Your task to perform on an android device: Search for pizza restaurants on Maps Image 0: 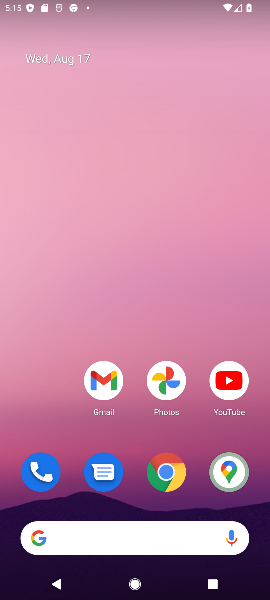
Step 0: drag from (135, 435) to (135, 381)
Your task to perform on an android device: Search for pizza restaurants on Maps Image 1: 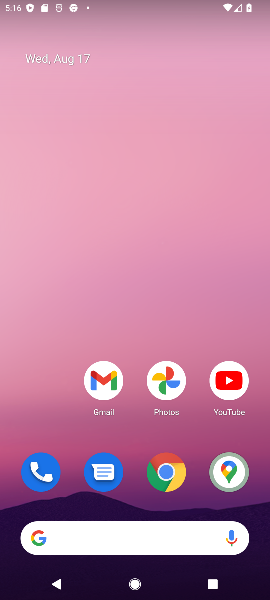
Step 1: click (230, 473)
Your task to perform on an android device: Search for pizza restaurants on Maps Image 2: 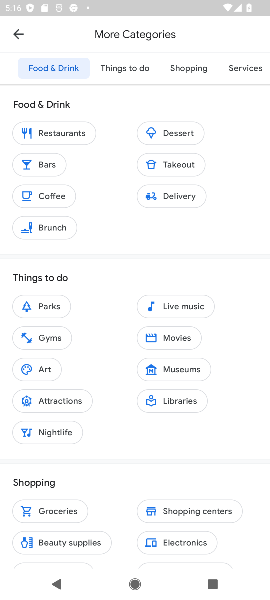
Step 2: click (23, 36)
Your task to perform on an android device: Search for pizza restaurants on Maps Image 3: 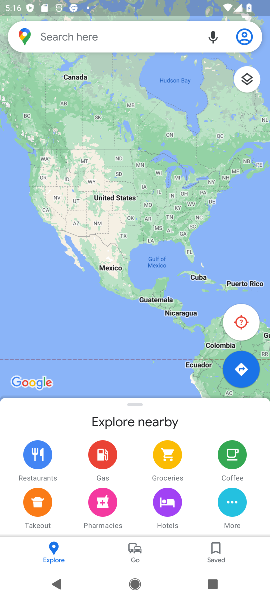
Step 3: click (103, 45)
Your task to perform on an android device: Search for pizza restaurants on Maps Image 4: 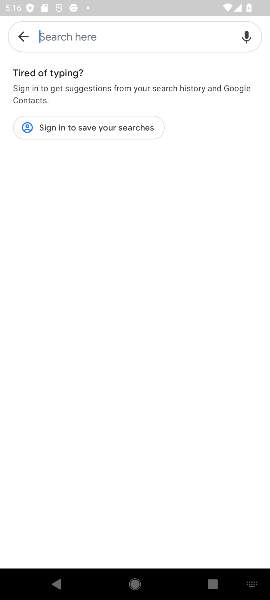
Step 4: type "pizza restaurants"
Your task to perform on an android device: Search for pizza restaurants on Maps Image 5: 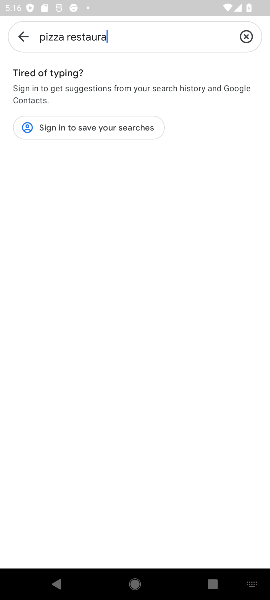
Step 5: type ""
Your task to perform on an android device: Search for pizza restaurants on Maps Image 6: 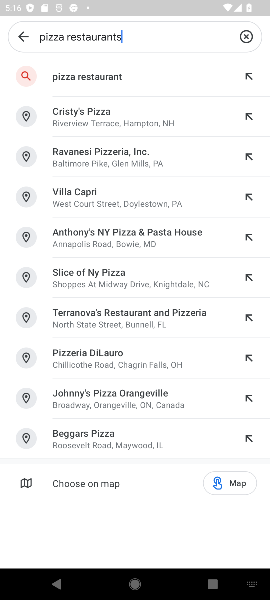
Step 6: click (90, 78)
Your task to perform on an android device: Search for pizza restaurants on Maps Image 7: 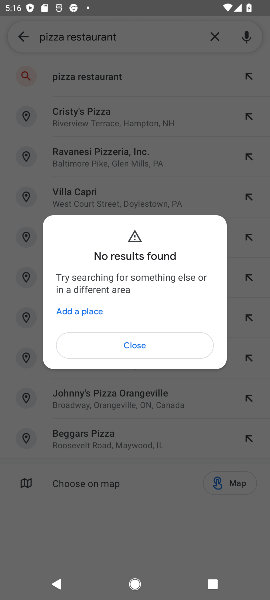
Step 7: click (159, 349)
Your task to perform on an android device: Search for pizza restaurants on Maps Image 8: 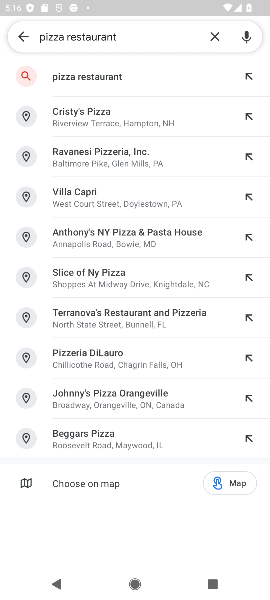
Step 8: click (99, 78)
Your task to perform on an android device: Search for pizza restaurants on Maps Image 9: 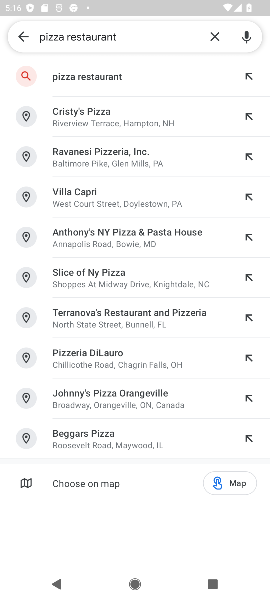
Step 9: click (99, 78)
Your task to perform on an android device: Search for pizza restaurants on Maps Image 10: 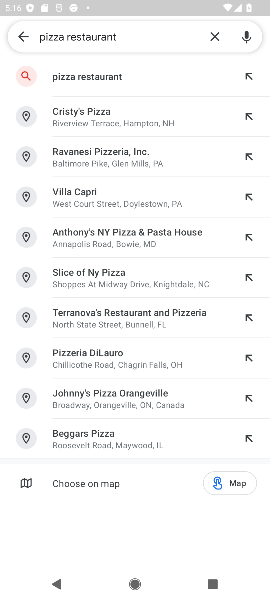
Step 10: click (130, 67)
Your task to perform on an android device: Search for pizza restaurants on Maps Image 11: 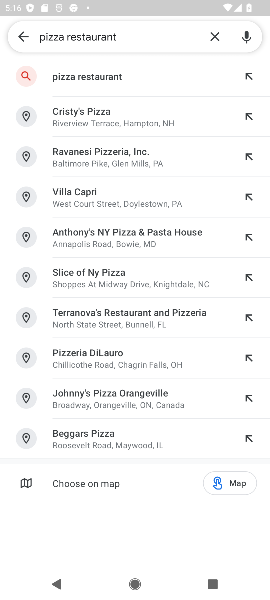
Step 11: click (212, 36)
Your task to perform on an android device: Search for pizza restaurants on Maps Image 12: 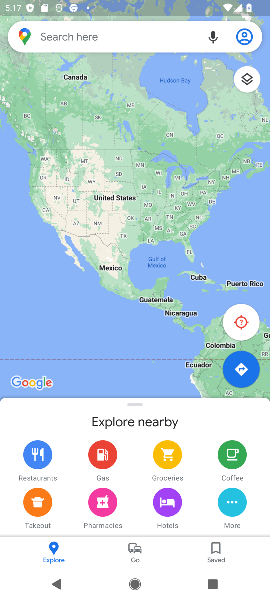
Step 12: click (163, 40)
Your task to perform on an android device: Search for pizza restaurants on Maps Image 13: 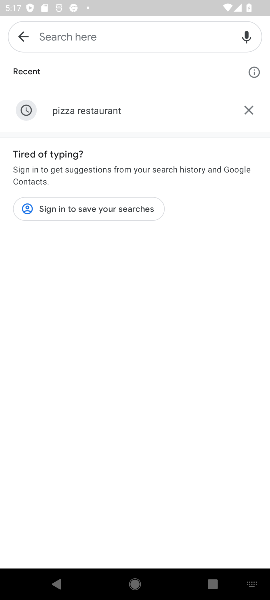
Step 13: click (78, 117)
Your task to perform on an android device: Search for pizza restaurants on Maps Image 14: 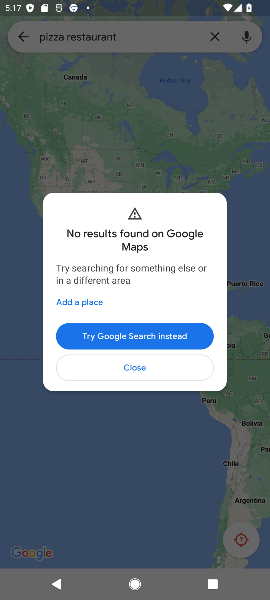
Step 14: click (149, 340)
Your task to perform on an android device: Search for pizza restaurants on Maps Image 15: 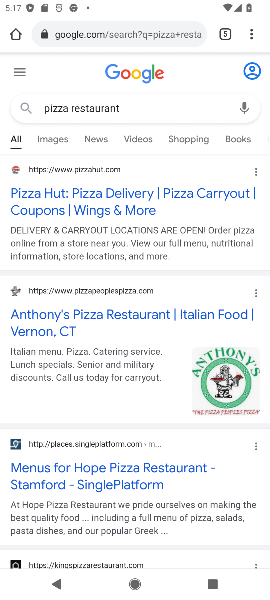
Step 15: task complete